Your task to perform on an android device: Open Amazon Image 0: 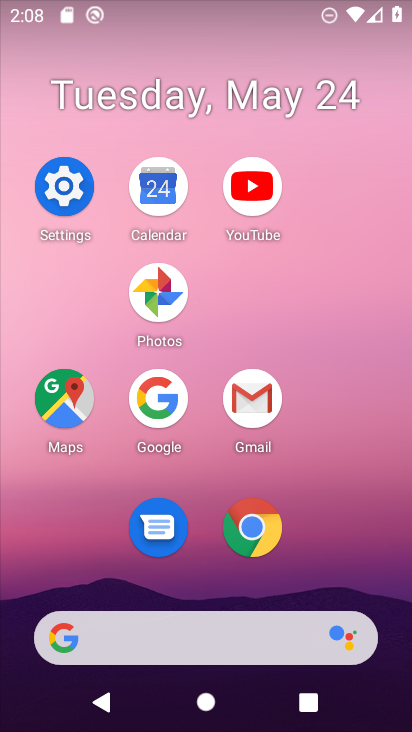
Step 0: click (254, 524)
Your task to perform on an android device: Open Amazon Image 1: 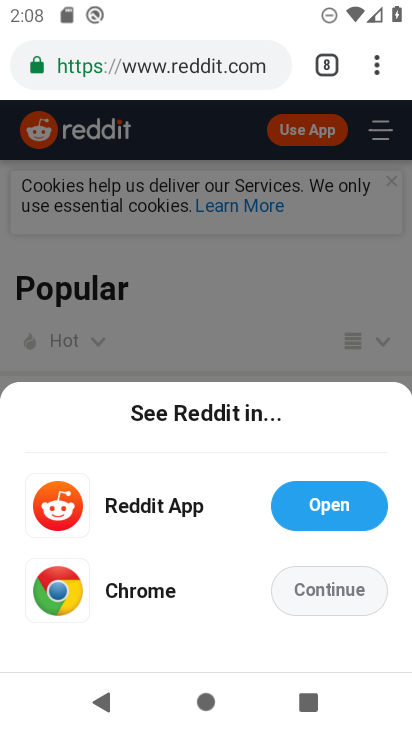
Step 1: click (319, 57)
Your task to perform on an android device: Open Amazon Image 2: 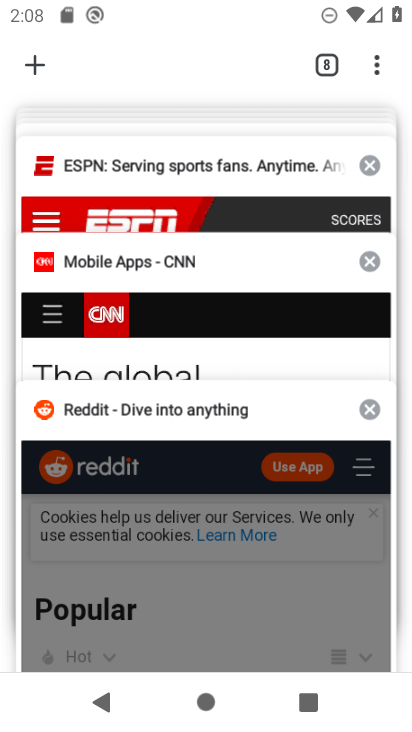
Step 2: drag from (206, 317) to (269, 604)
Your task to perform on an android device: Open Amazon Image 3: 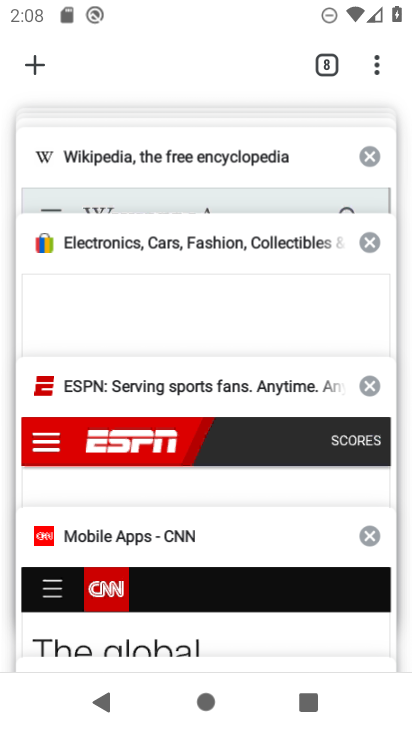
Step 3: drag from (148, 233) to (233, 551)
Your task to perform on an android device: Open Amazon Image 4: 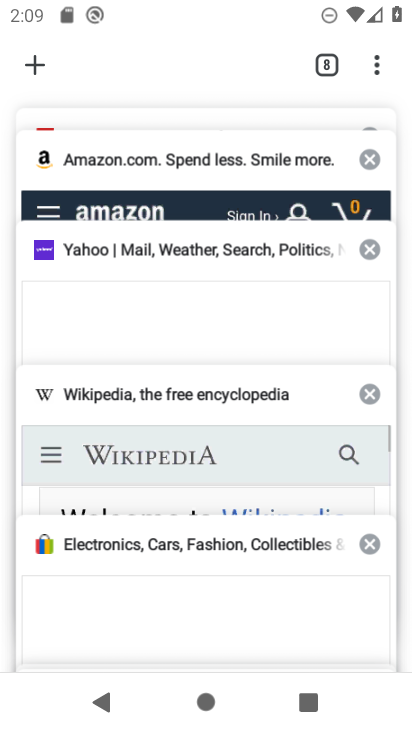
Step 4: click (128, 157)
Your task to perform on an android device: Open Amazon Image 5: 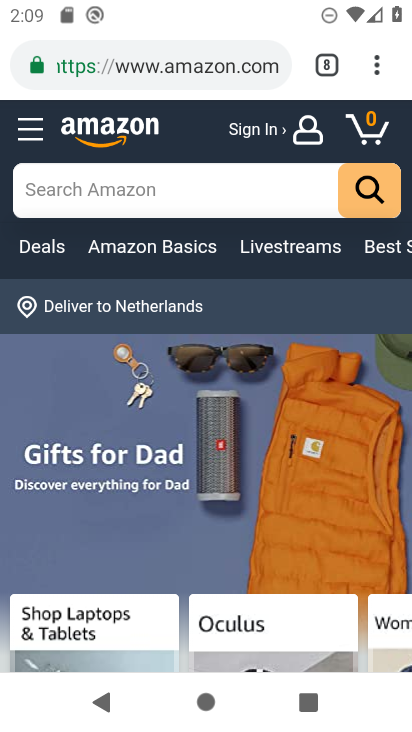
Step 5: task complete